Your task to perform on an android device: Open Chrome and go to settings Image 0: 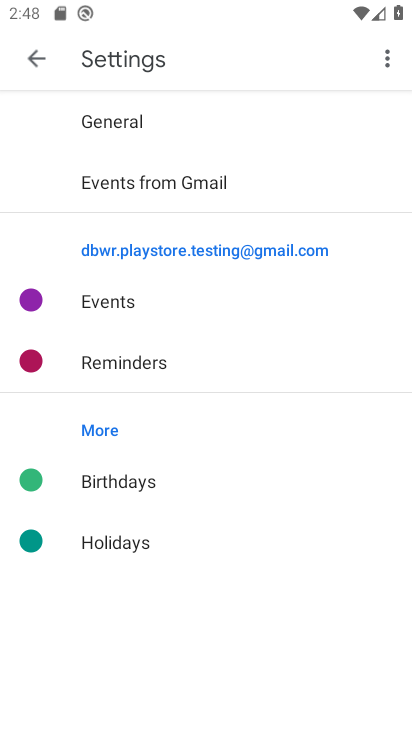
Step 0: press home button
Your task to perform on an android device: Open Chrome and go to settings Image 1: 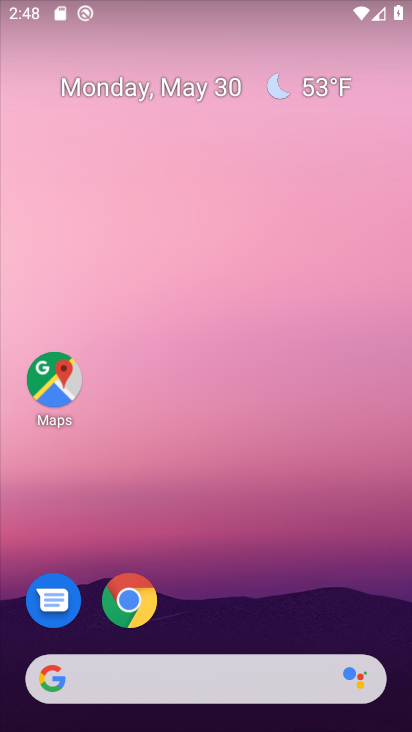
Step 1: drag from (371, 517) to (394, 71)
Your task to perform on an android device: Open Chrome and go to settings Image 2: 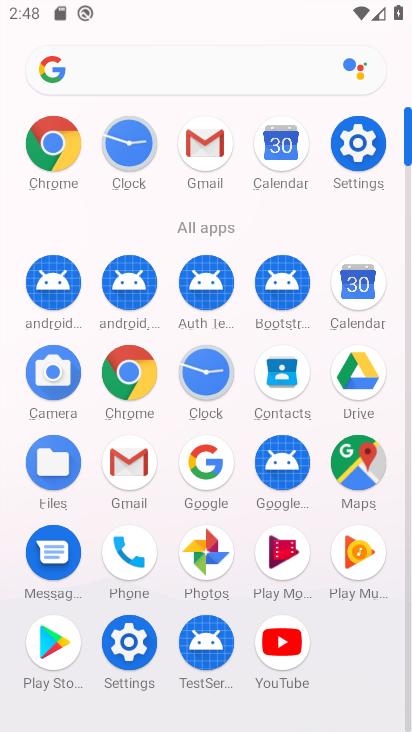
Step 2: click (157, 382)
Your task to perform on an android device: Open Chrome and go to settings Image 3: 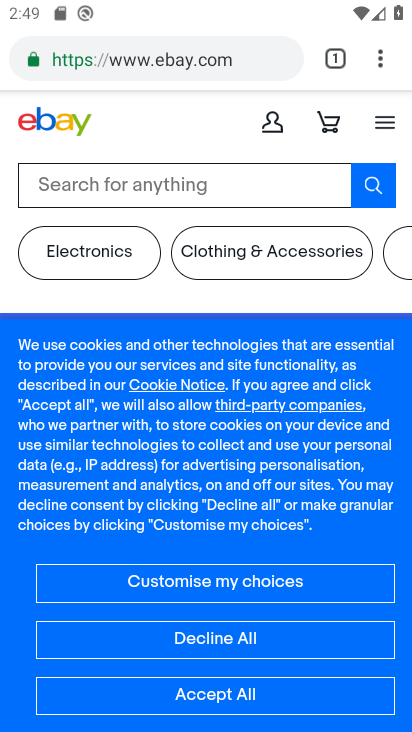
Step 3: task complete